Your task to perform on an android device: see creations saved in the google photos Image 0: 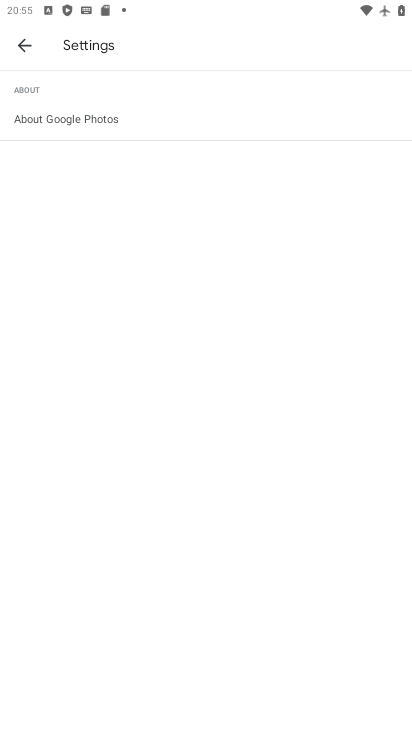
Step 0: press home button
Your task to perform on an android device: see creations saved in the google photos Image 1: 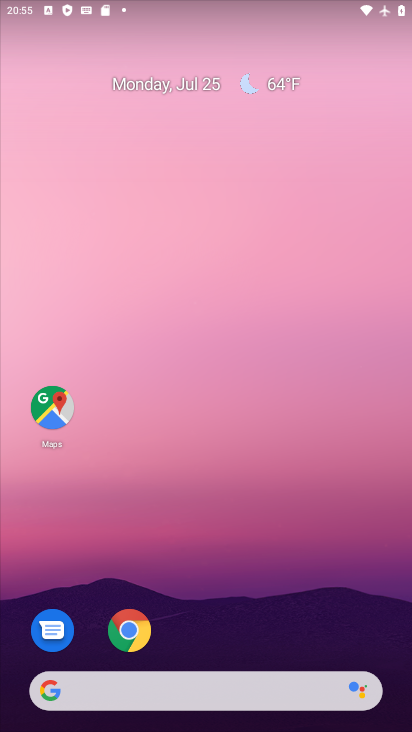
Step 1: drag from (390, 648) to (334, 171)
Your task to perform on an android device: see creations saved in the google photos Image 2: 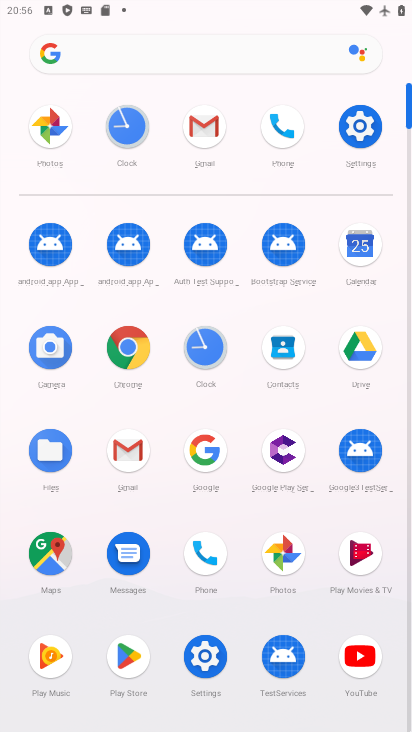
Step 2: click (284, 552)
Your task to perform on an android device: see creations saved in the google photos Image 3: 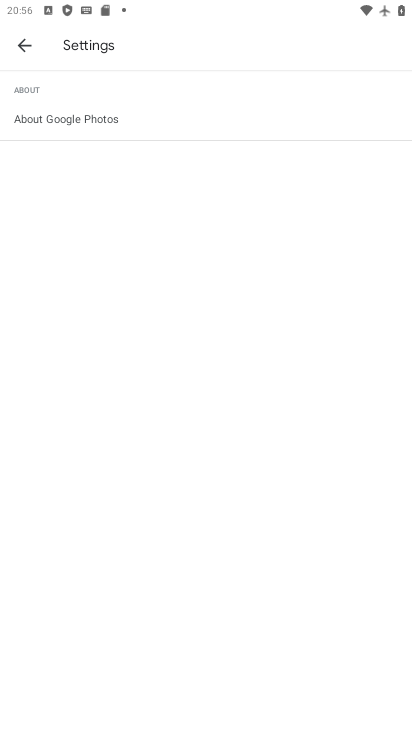
Step 3: press back button
Your task to perform on an android device: see creations saved in the google photos Image 4: 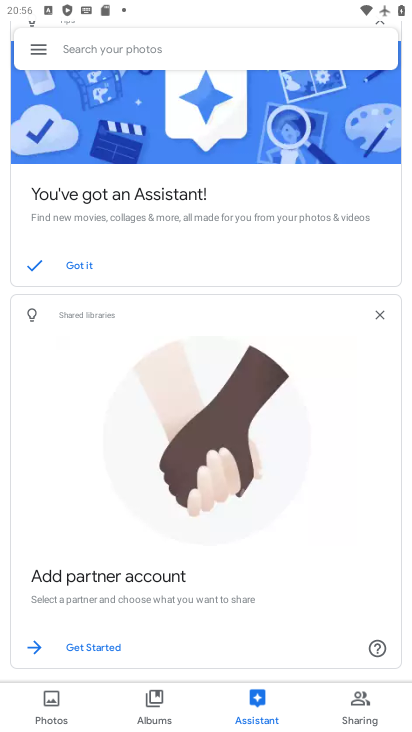
Step 4: click (46, 692)
Your task to perform on an android device: see creations saved in the google photos Image 5: 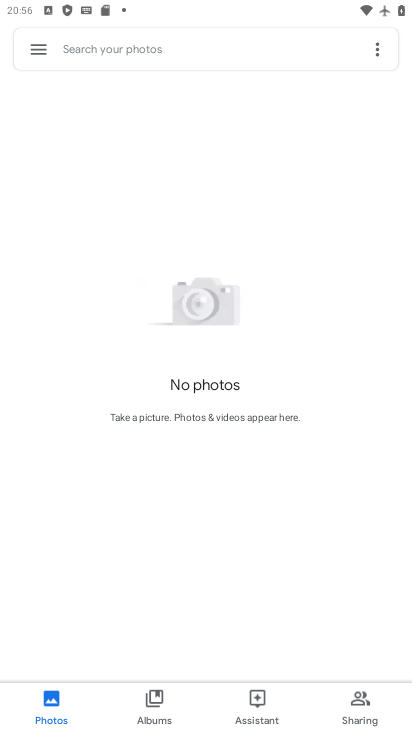
Step 5: task complete